Your task to perform on an android device: turn on wifi Image 0: 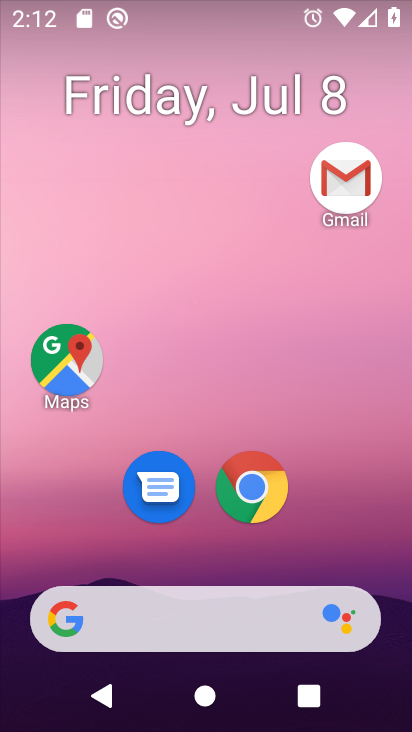
Step 0: drag from (370, 525) to (391, 133)
Your task to perform on an android device: turn on wifi Image 1: 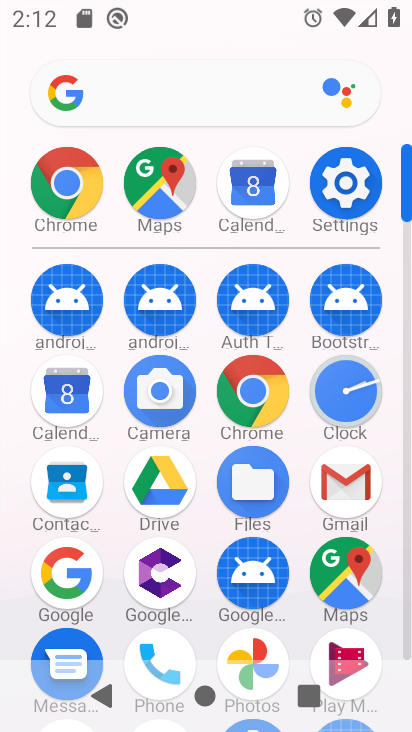
Step 1: click (332, 202)
Your task to perform on an android device: turn on wifi Image 2: 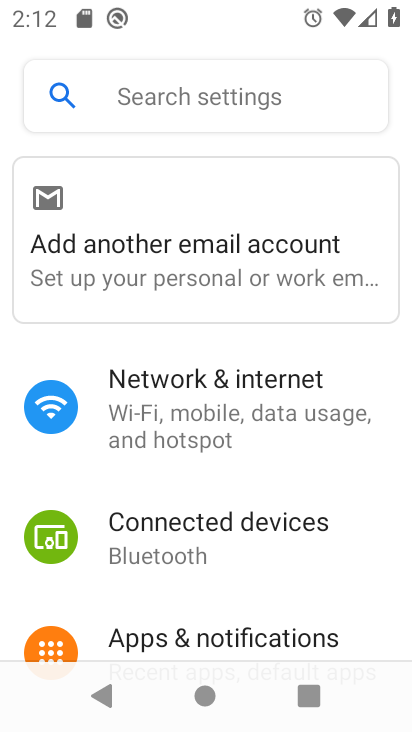
Step 2: click (283, 394)
Your task to perform on an android device: turn on wifi Image 3: 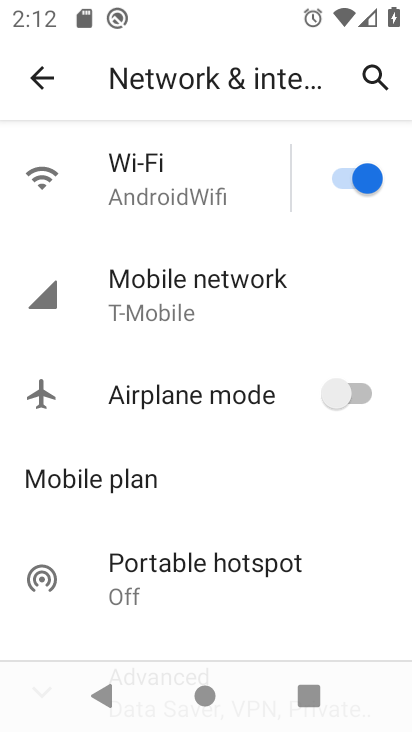
Step 3: task complete